Your task to perform on an android device: read, delete, or share a saved page in the chrome app Image 0: 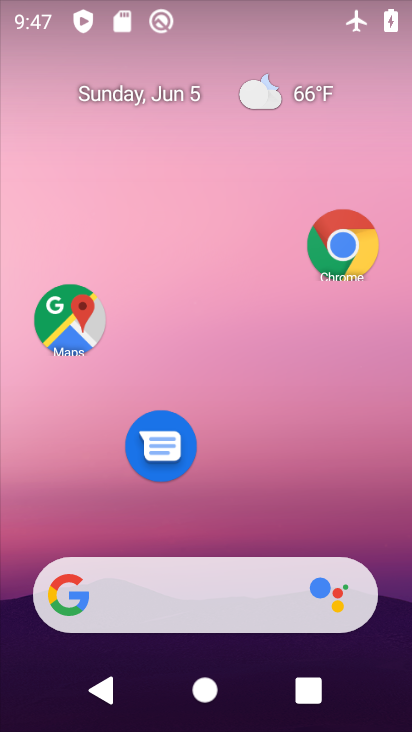
Step 0: click (341, 249)
Your task to perform on an android device: read, delete, or share a saved page in the chrome app Image 1: 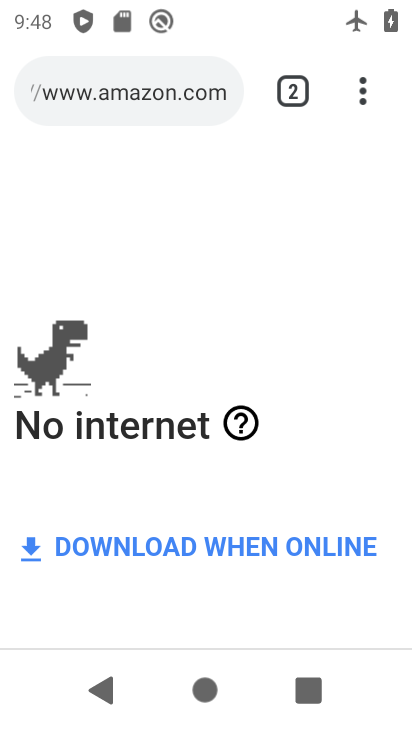
Step 1: drag from (362, 100) to (118, 342)
Your task to perform on an android device: read, delete, or share a saved page in the chrome app Image 2: 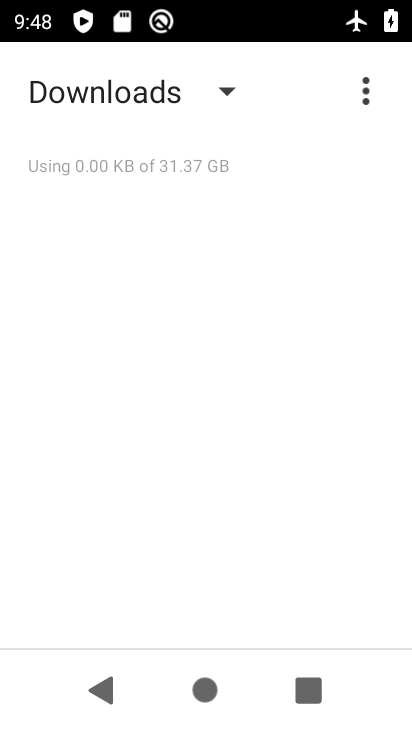
Step 2: click (198, 85)
Your task to perform on an android device: read, delete, or share a saved page in the chrome app Image 3: 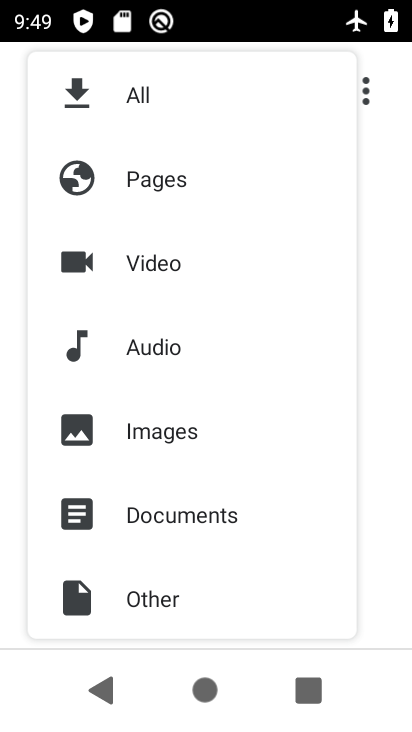
Step 3: click (154, 176)
Your task to perform on an android device: read, delete, or share a saved page in the chrome app Image 4: 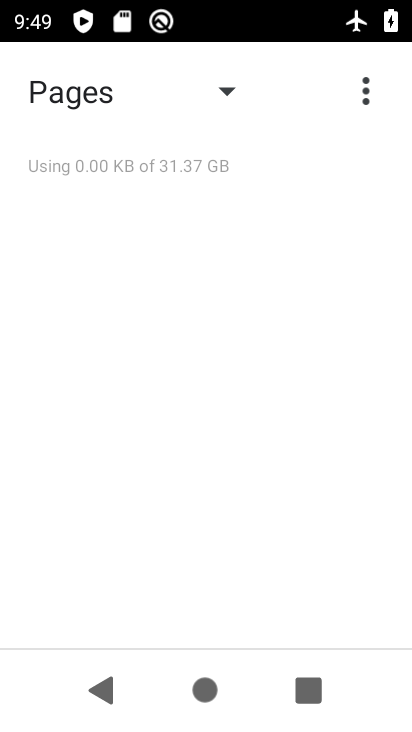
Step 4: click (206, 104)
Your task to perform on an android device: read, delete, or share a saved page in the chrome app Image 5: 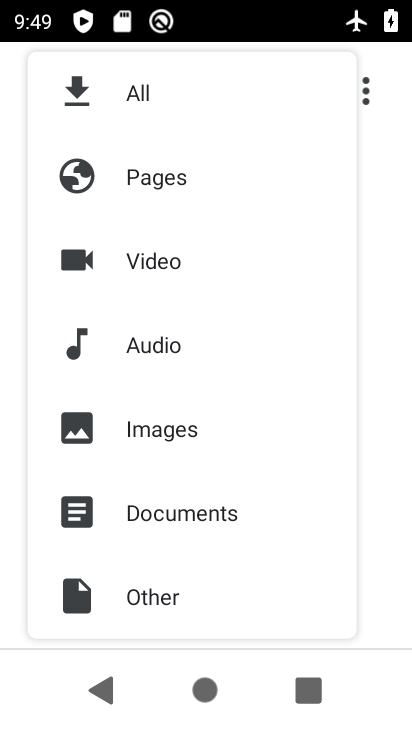
Step 5: click (172, 178)
Your task to perform on an android device: read, delete, or share a saved page in the chrome app Image 6: 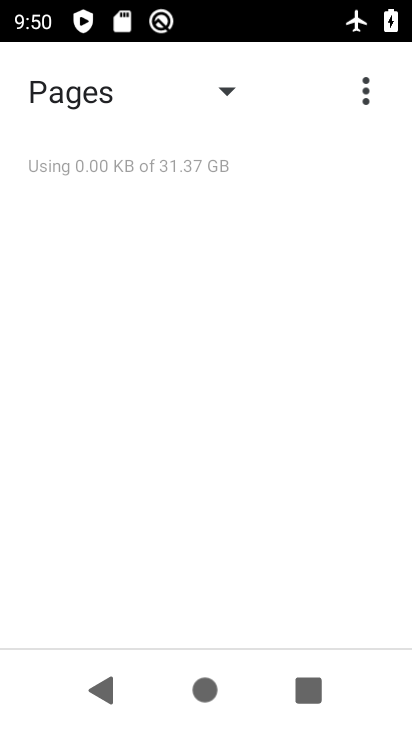
Step 6: click (205, 94)
Your task to perform on an android device: read, delete, or share a saved page in the chrome app Image 7: 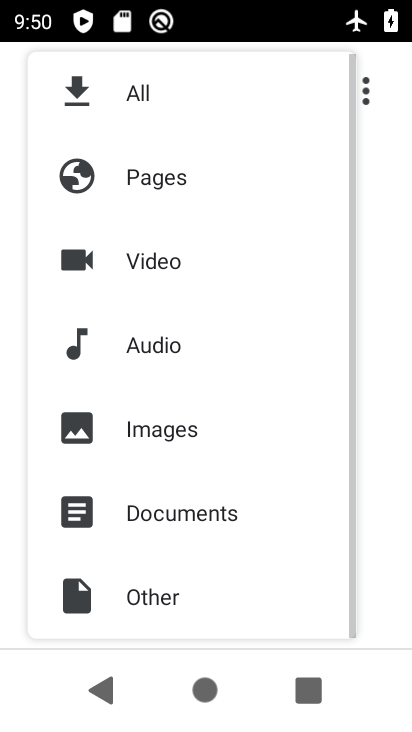
Step 7: click (185, 187)
Your task to perform on an android device: read, delete, or share a saved page in the chrome app Image 8: 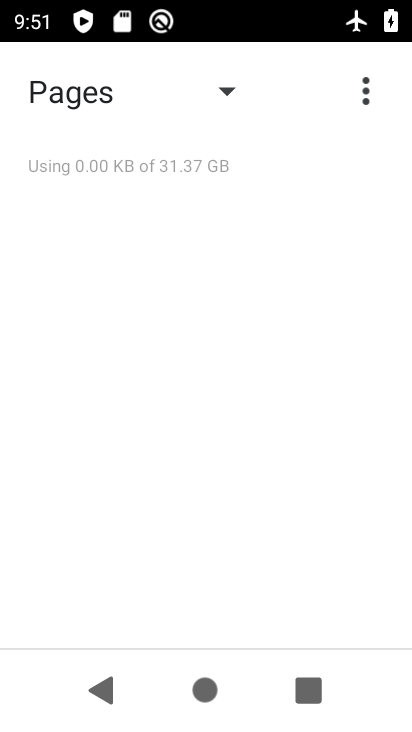
Step 8: task complete